Your task to perform on an android device: toggle improve location accuracy Image 0: 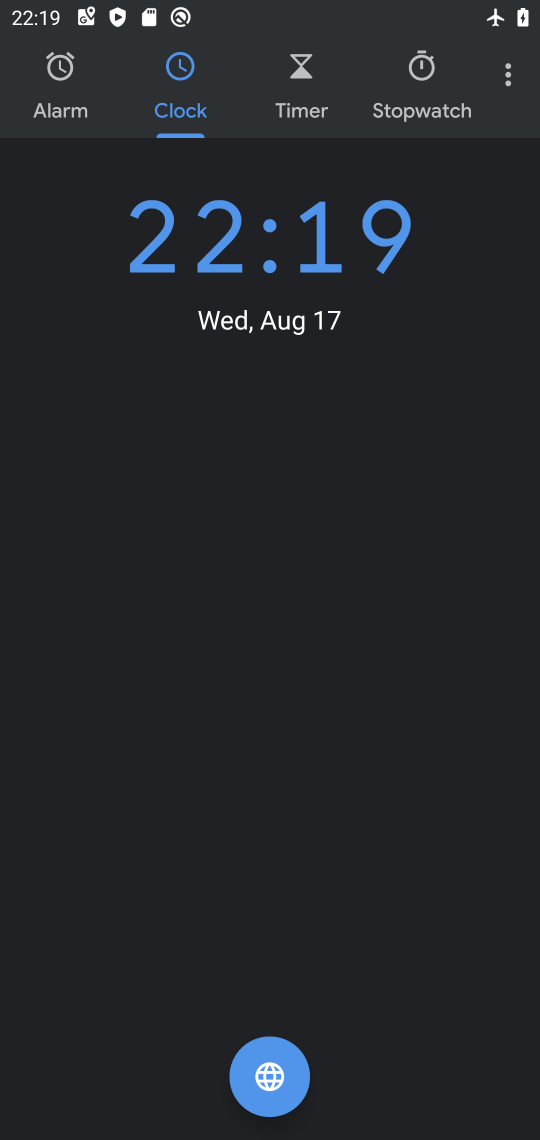
Step 0: press home button
Your task to perform on an android device: toggle improve location accuracy Image 1: 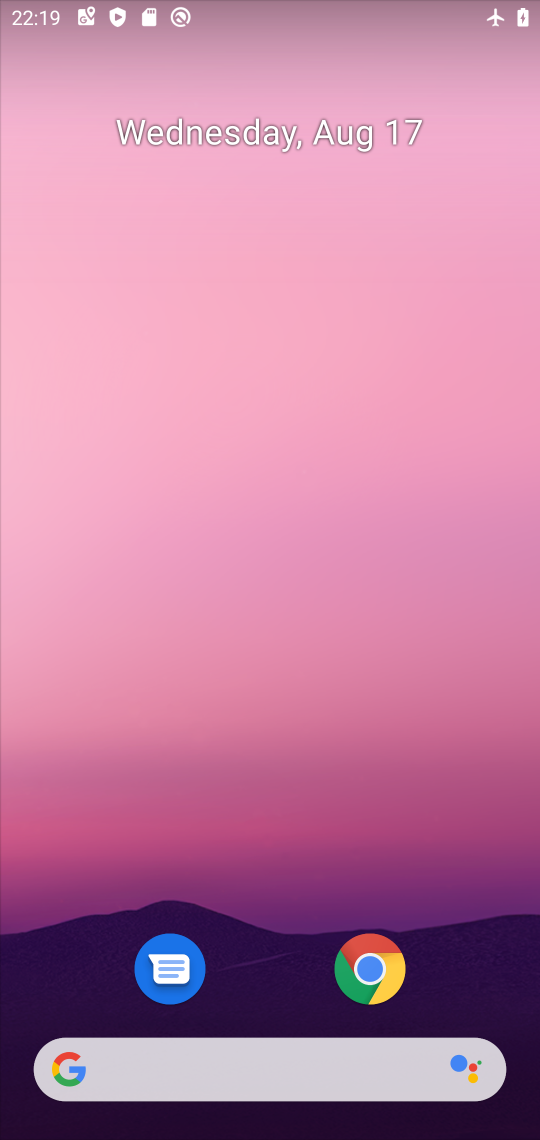
Step 1: drag from (302, 868) to (226, 193)
Your task to perform on an android device: toggle improve location accuracy Image 2: 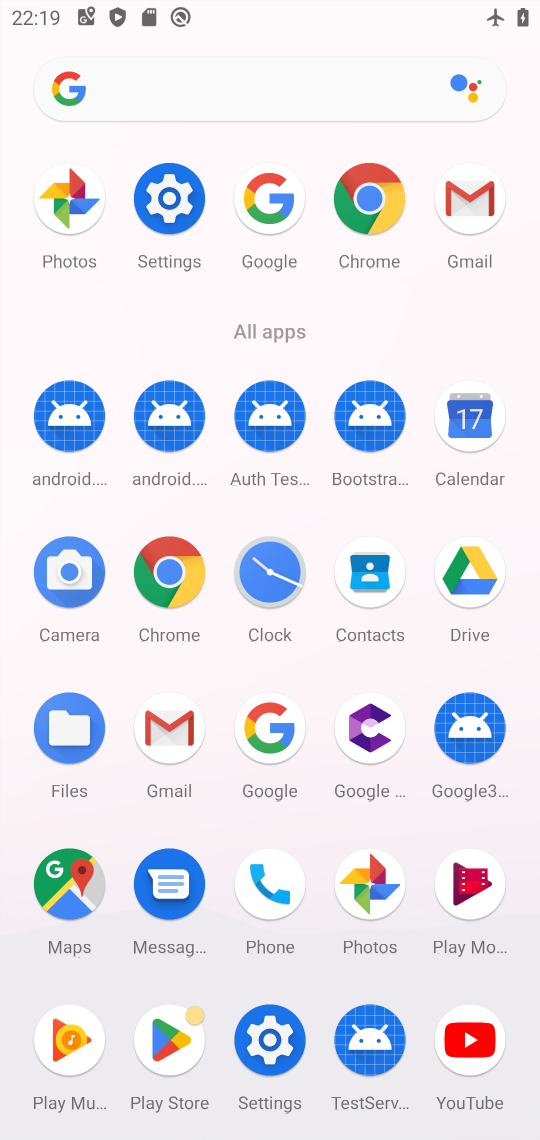
Step 2: click (168, 198)
Your task to perform on an android device: toggle improve location accuracy Image 3: 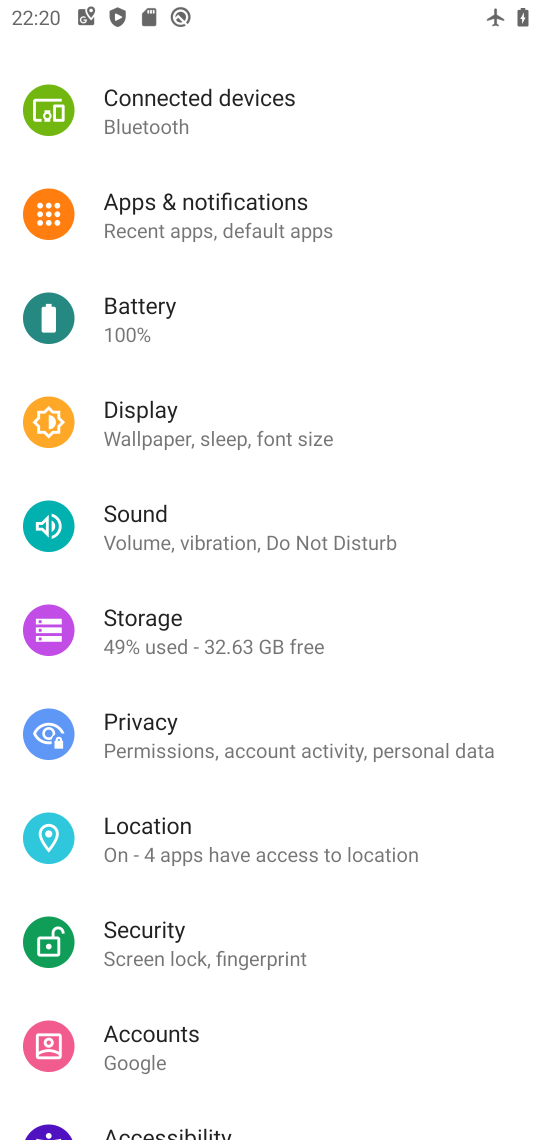
Step 3: click (147, 813)
Your task to perform on an android device: toggle improve location accuracy Image 4: 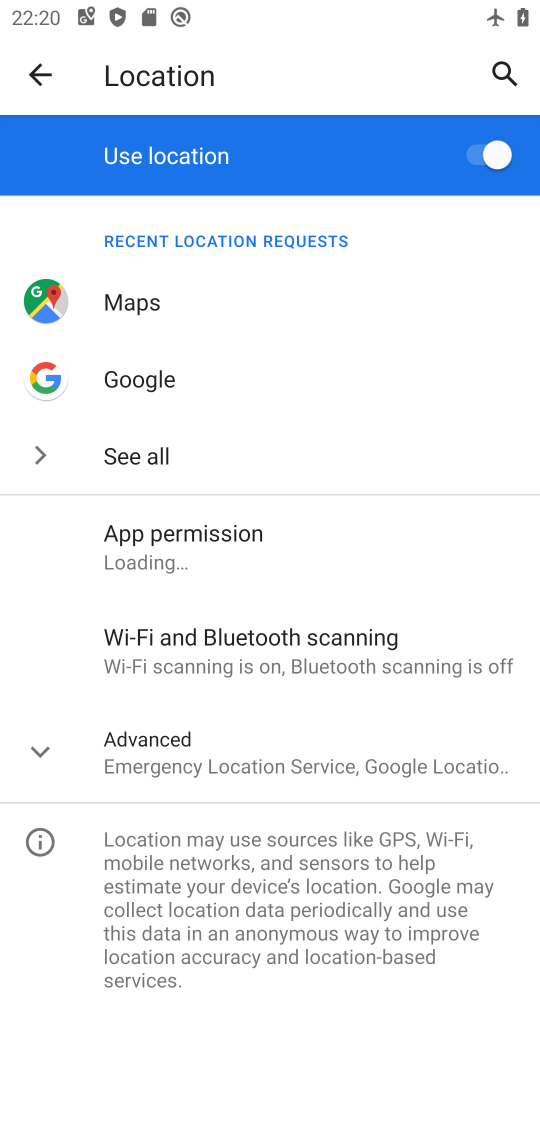
Step 4: click (62, 739)
Your task to perform on an android device: toggle improve location accuracy Image 5: 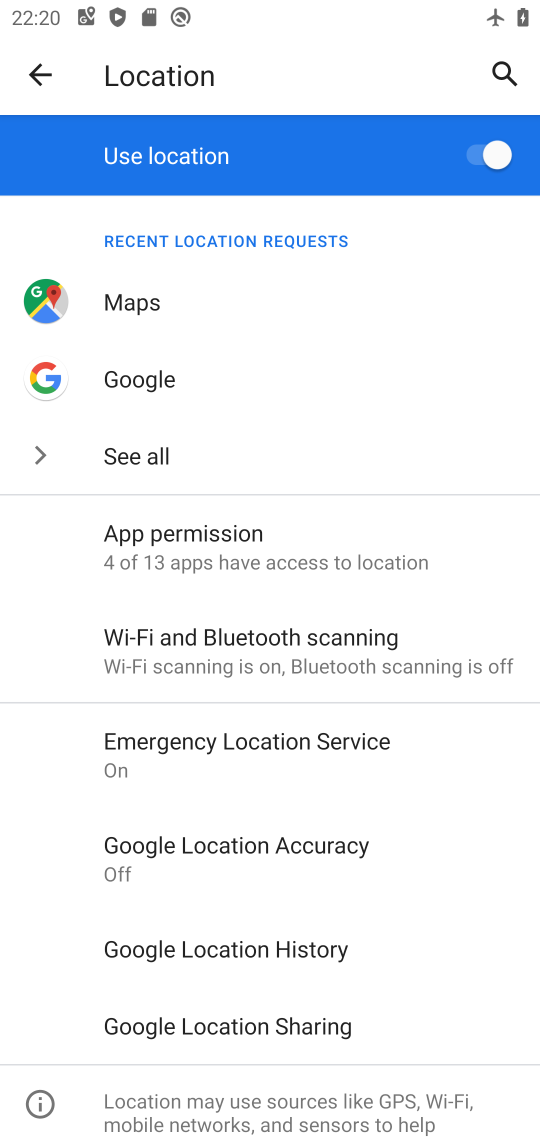
Step 5: click (247, 850)
Your task to perform on an android device: toggle improve location accuracy Image 6: 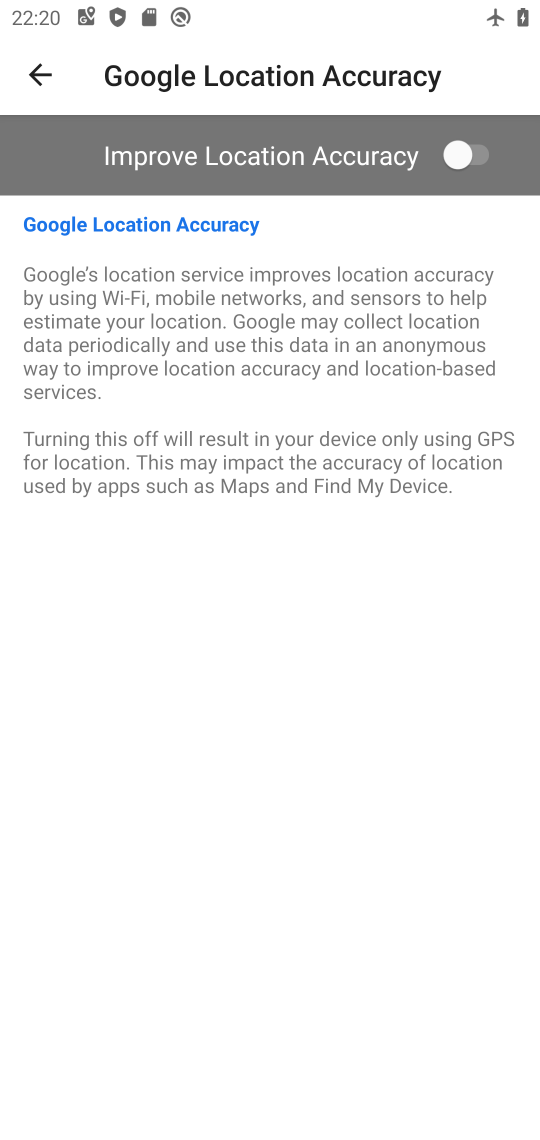
Step 6: click (454, 156)
Your task to perform on an android device: toggle improve location accuracy Image 7: 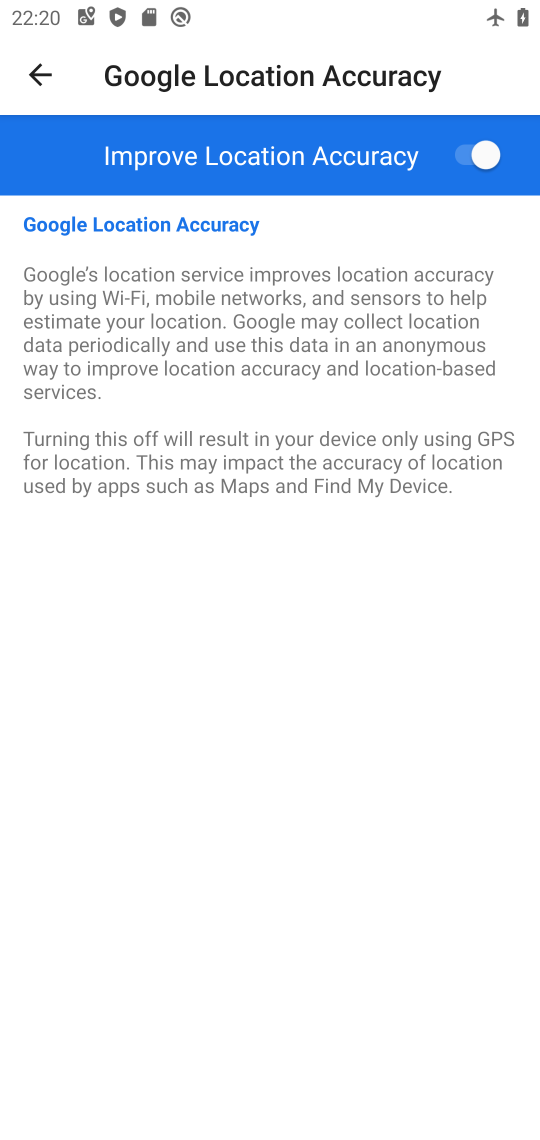
Step 7: task complete